Your task to perform on an android device: open a new tab in the chrome app Image 0: 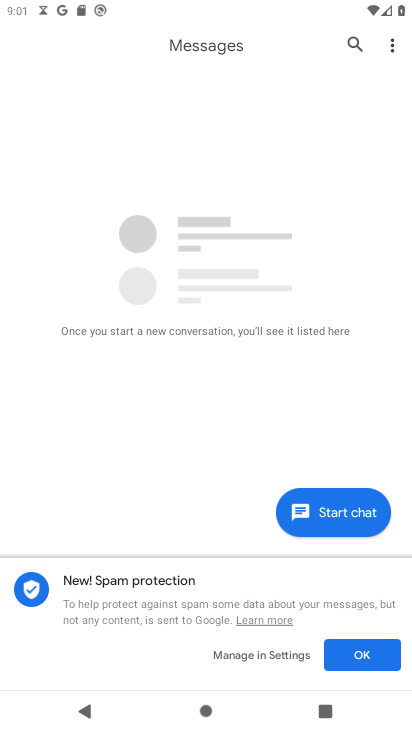
Step 0: press home button
Your task to perform on an android device: open a new tab in the chrome app Image 1: 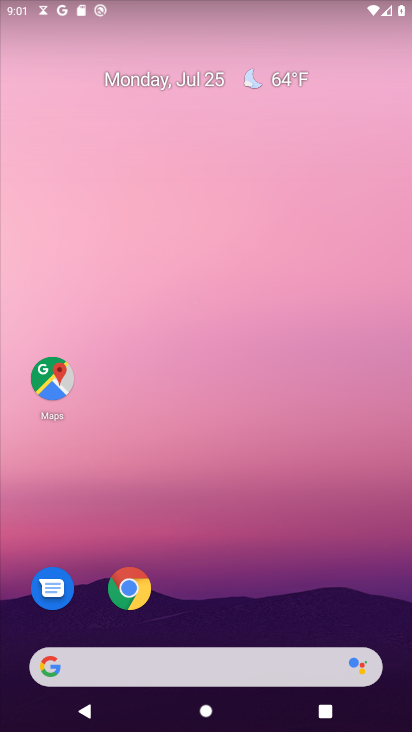
Step 1: drag from (223, 662) to (221, 116)
Your task to perform on an android device: open a new tab in the chrome app Image 2: 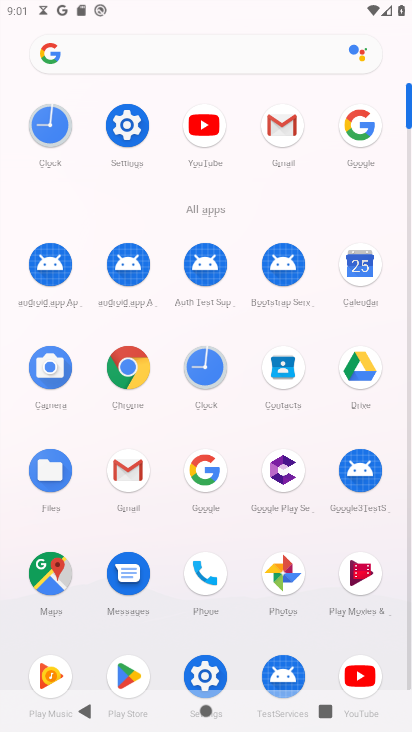
Step 2: click (119, 360)
Your task to perform on an android device: open a new tab in the chrome app Image 3: 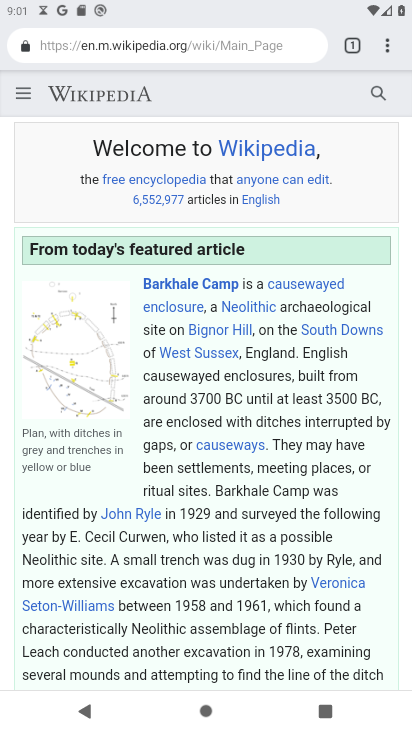
Step 3: task complete